Your task to perform on an android device: Open sound settings Image 0: 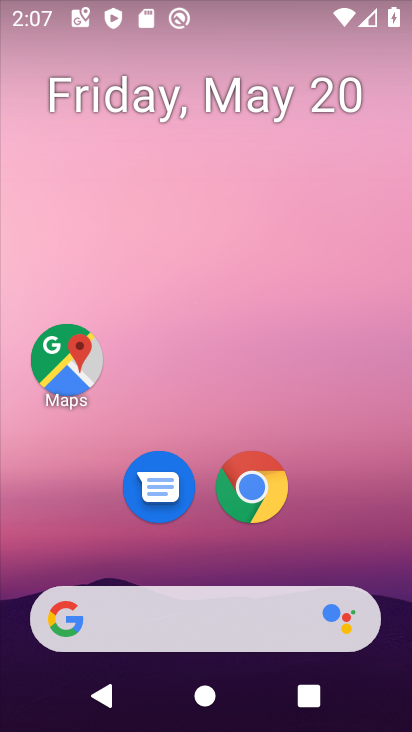
Step 0: drag from (375, 511) to (305, 4)
Your task to perform on an android device: Open sound settings Image 1: 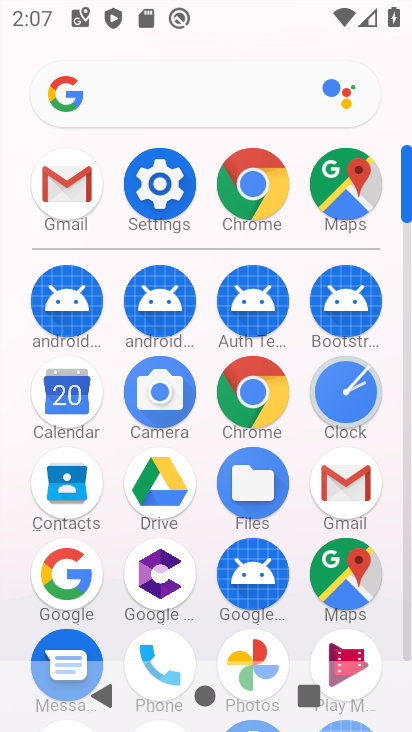
Step 1: click (164, 229)
Your task to perform on an android device: Open sound settings Image 2: 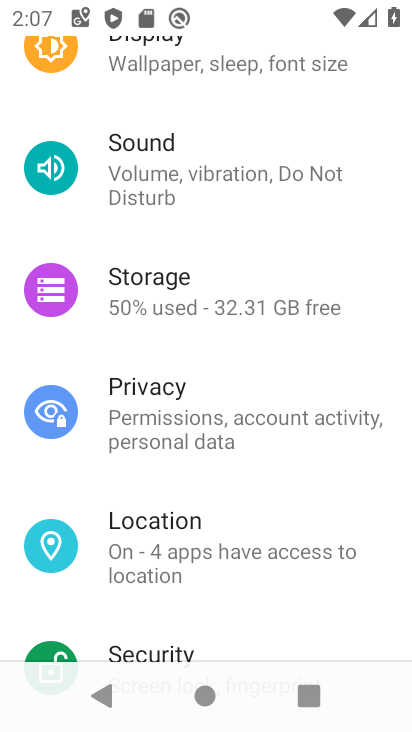
Step 2: click (160, 146)
Your task to perform on an android device: Open sound settings Image 3: 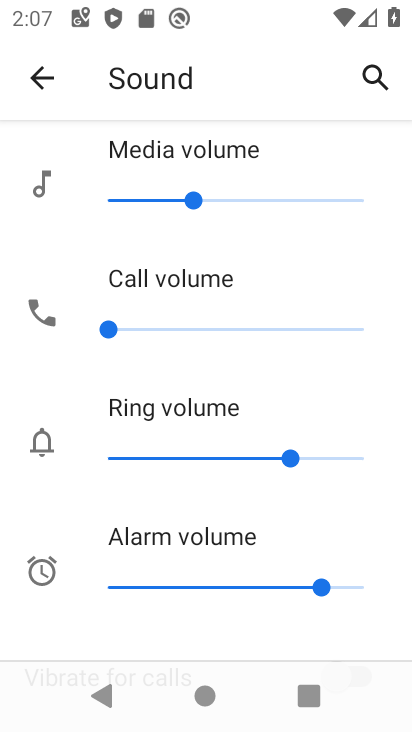
Step 3: task complete